Your task to perform on an android device: turn on sleep mode Image 0: 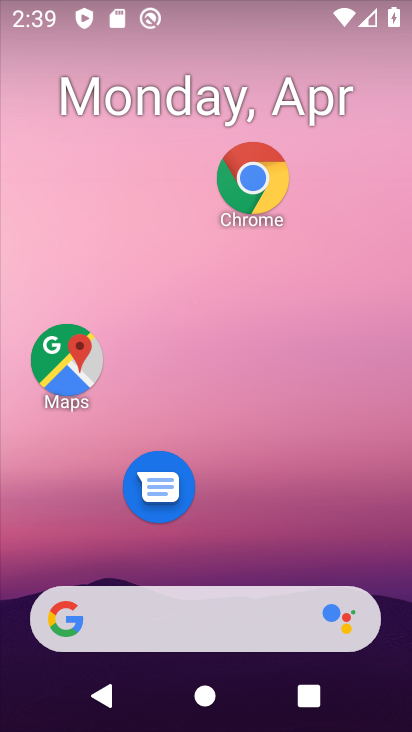
Step 0: drag from (217, 576) to (411, 49)
Your task to perform on an android device: turn on sleep mode Image 1: 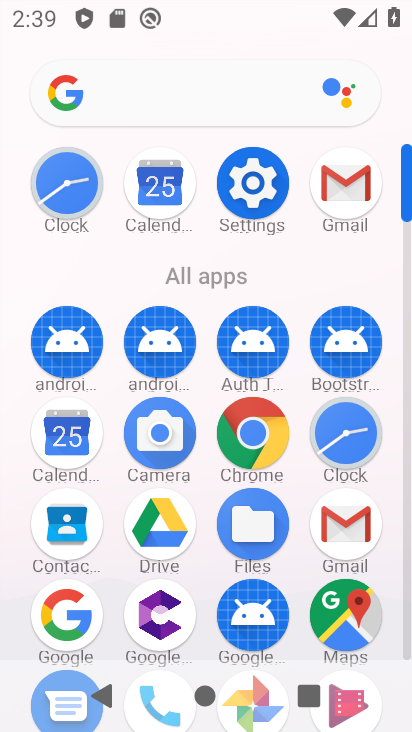
Step 1: click (250, 188)
Your task to perform on an android device: turn on sleep mode Image 2: 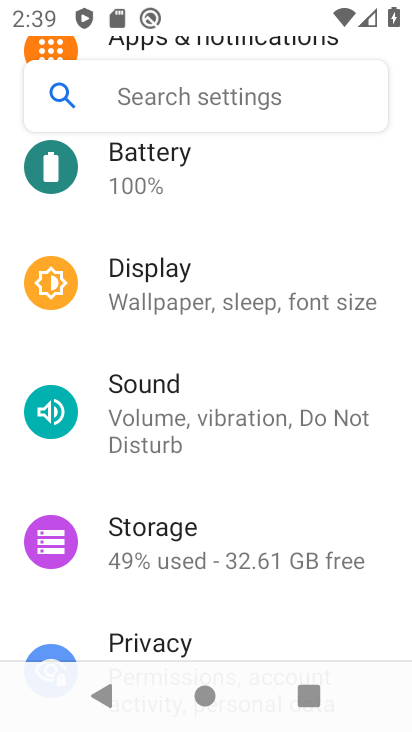
Step 2: click (191, 103)
Your task to perform on an android device: turn on sleep mode Image 3: 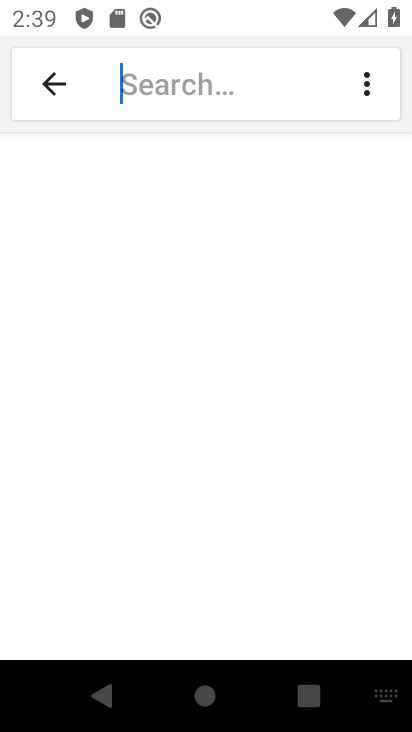
Step 3: type "sleep"
Your task to perform on an android device: turn on sleep mode Image 4: 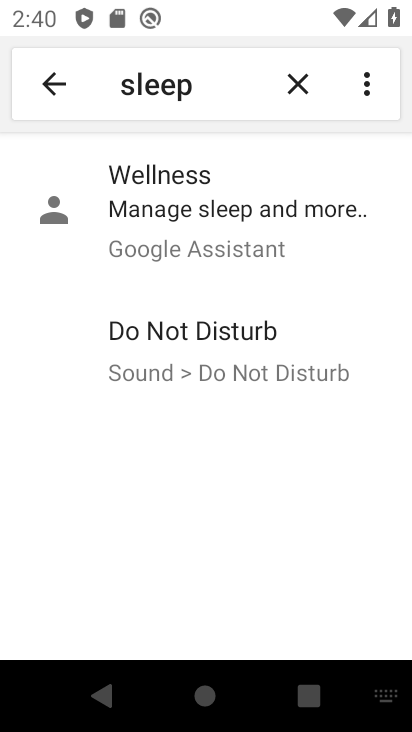
Step 4: click (214, 349)
Your task to perform on an android device: turn on sleep mode Image 5: 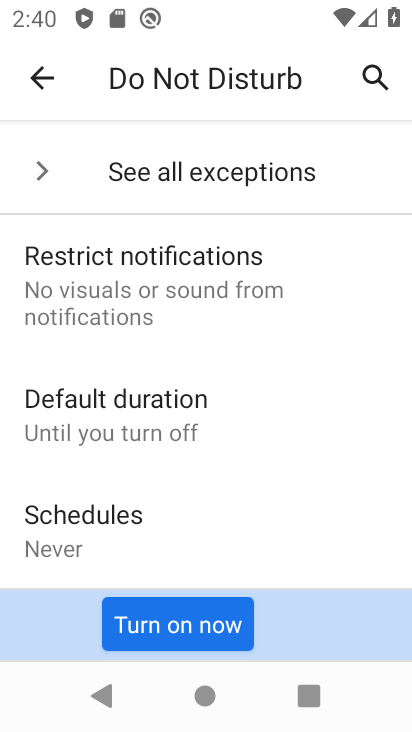
Step 5: task complete